Your task to perform on an android device: open app "WhatsApp Messenger" (install if not already installed) and go to login screen Image 0: 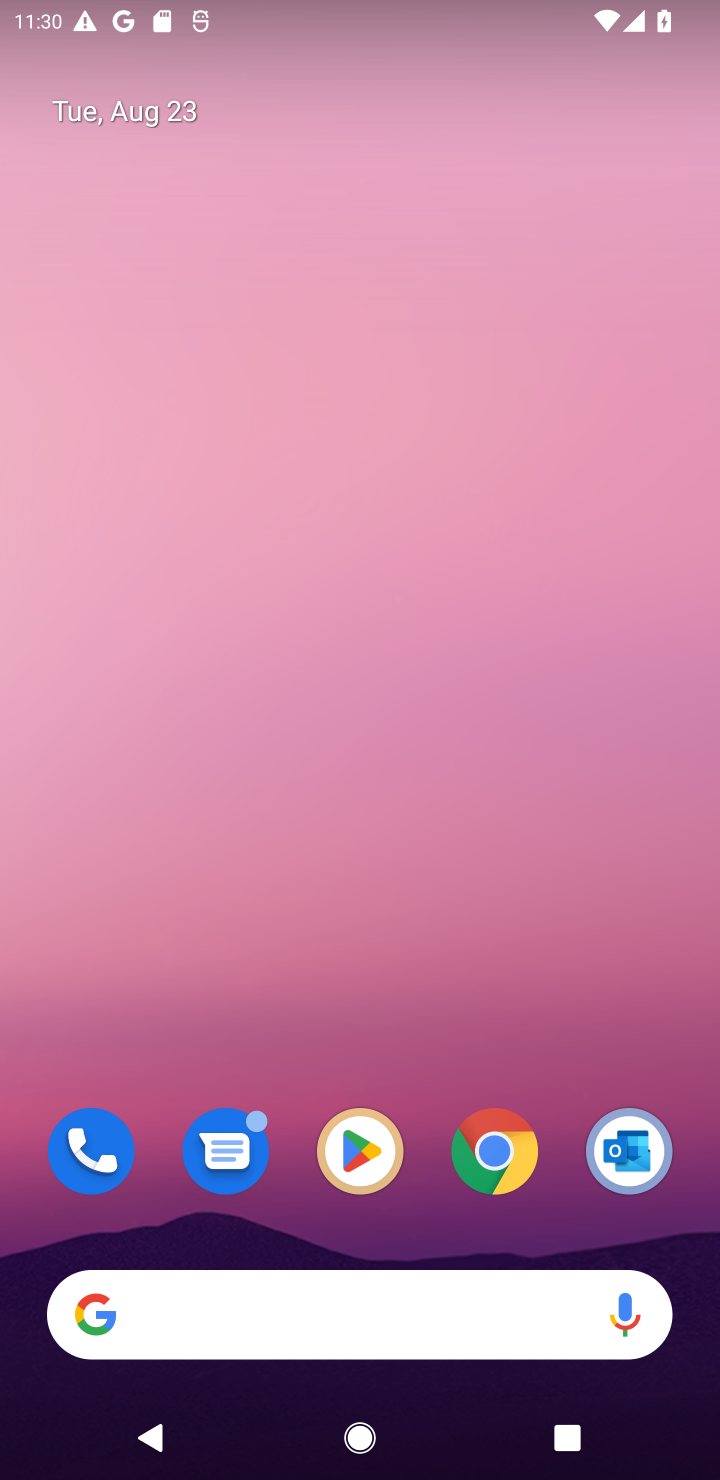
Step 0: click (330, 1154)
Your task to perform on an android device: open app "WhatsApp Messenger" (install if not already installed) and go to login screen Image 1: 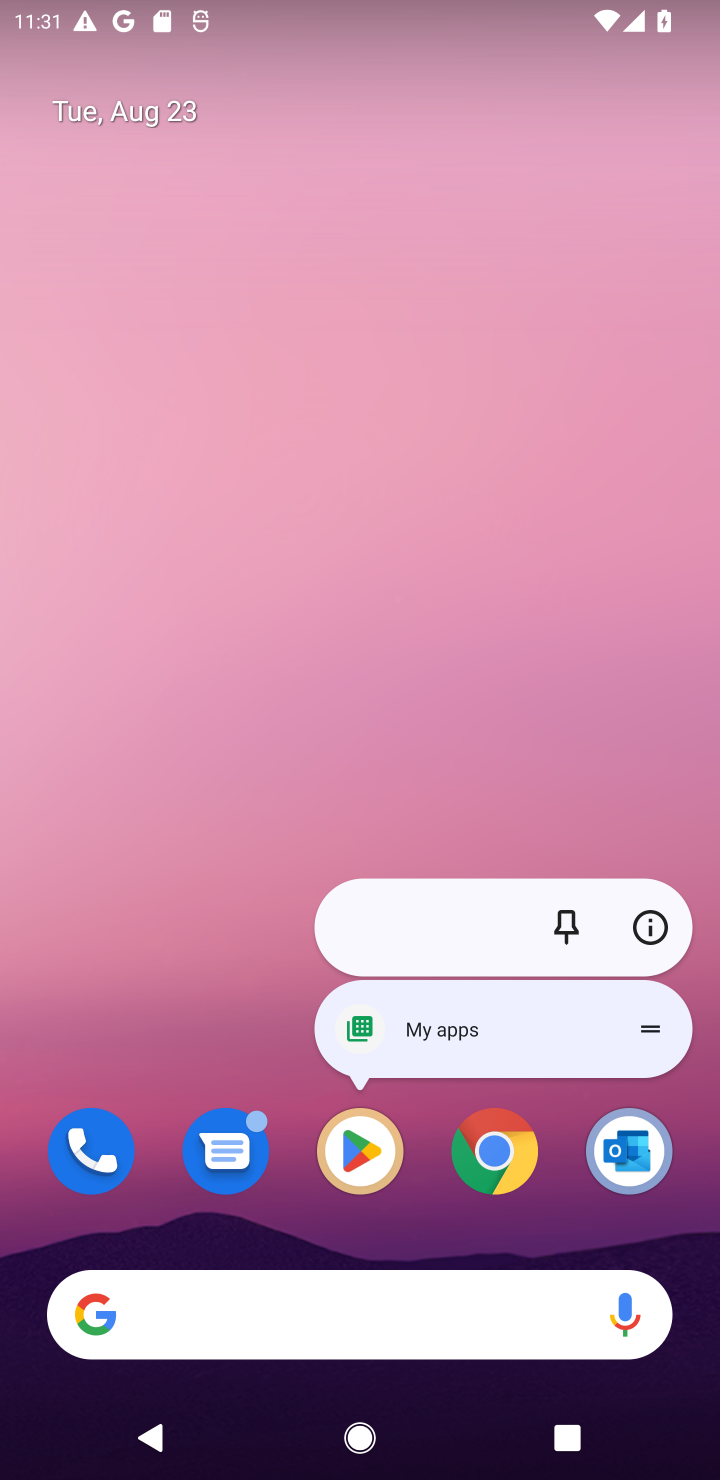
Step 1: click (338, 1152)
Your task to perform on an android device: open app "WhatsApp Messenger" (install if not already installed) and go to login screen Image 2: 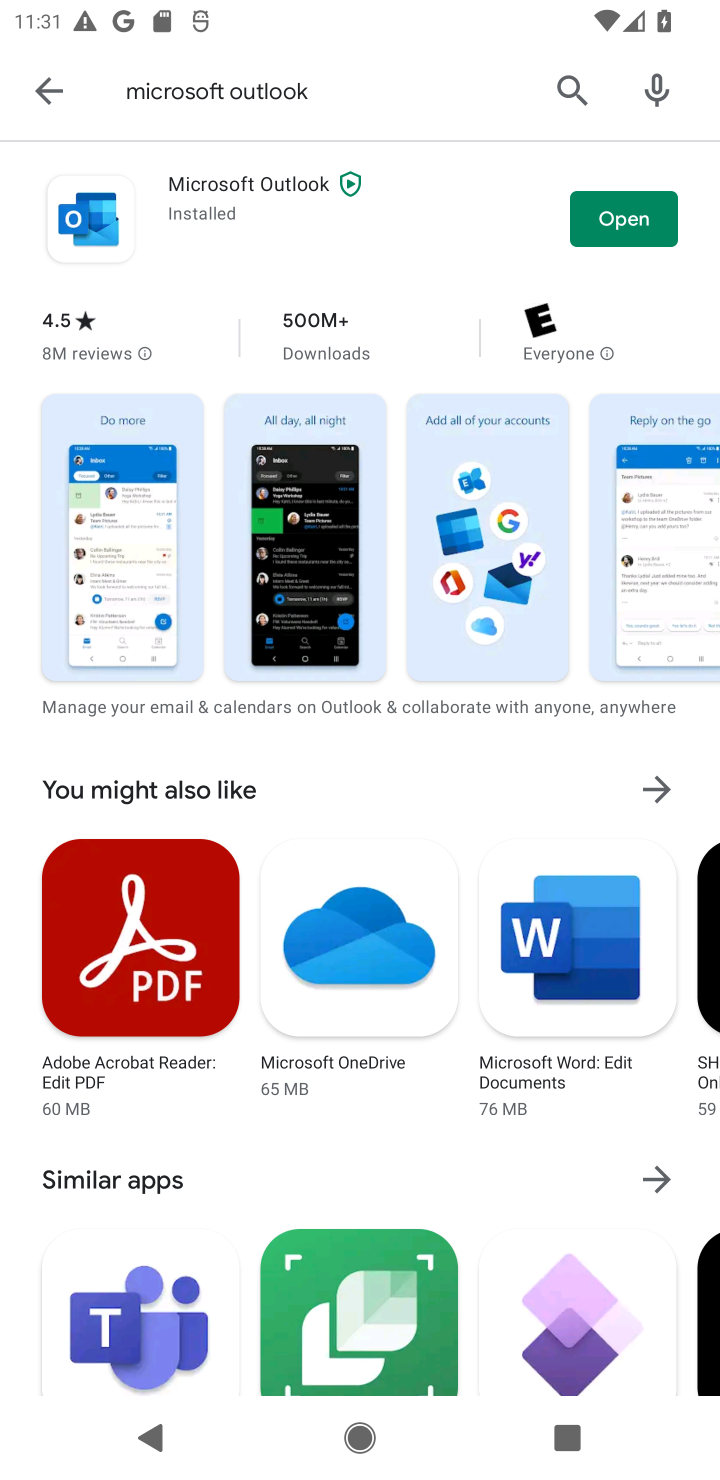
Step 2: click (568, 90)
Your task to perform on an android device: open app "WhatsApp Messenger" (install if not already installed) and go to login screen Image 3: 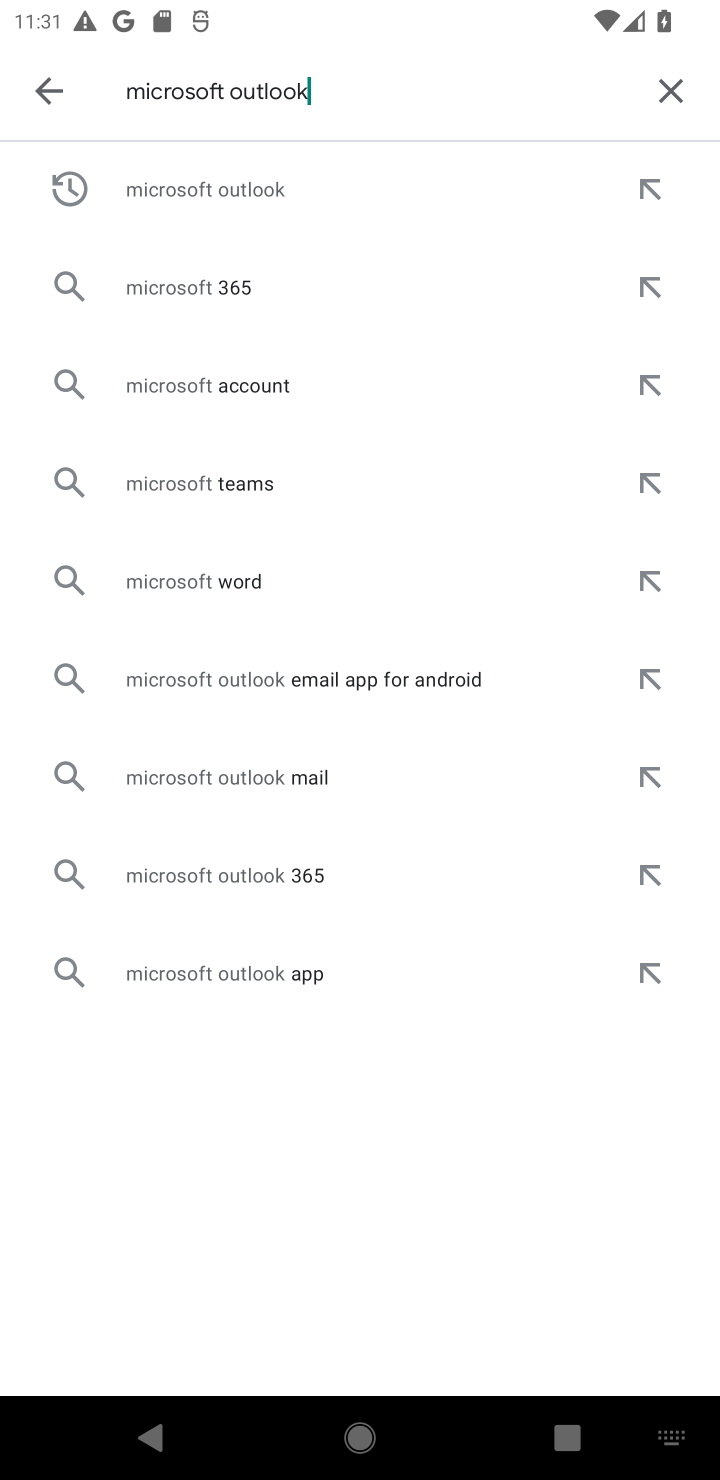
Step 3: click (688, 84)
Your task to perform on an android device: open app "WhatsApp Messenger" (install if not already installed) and go to login screen Image 4: 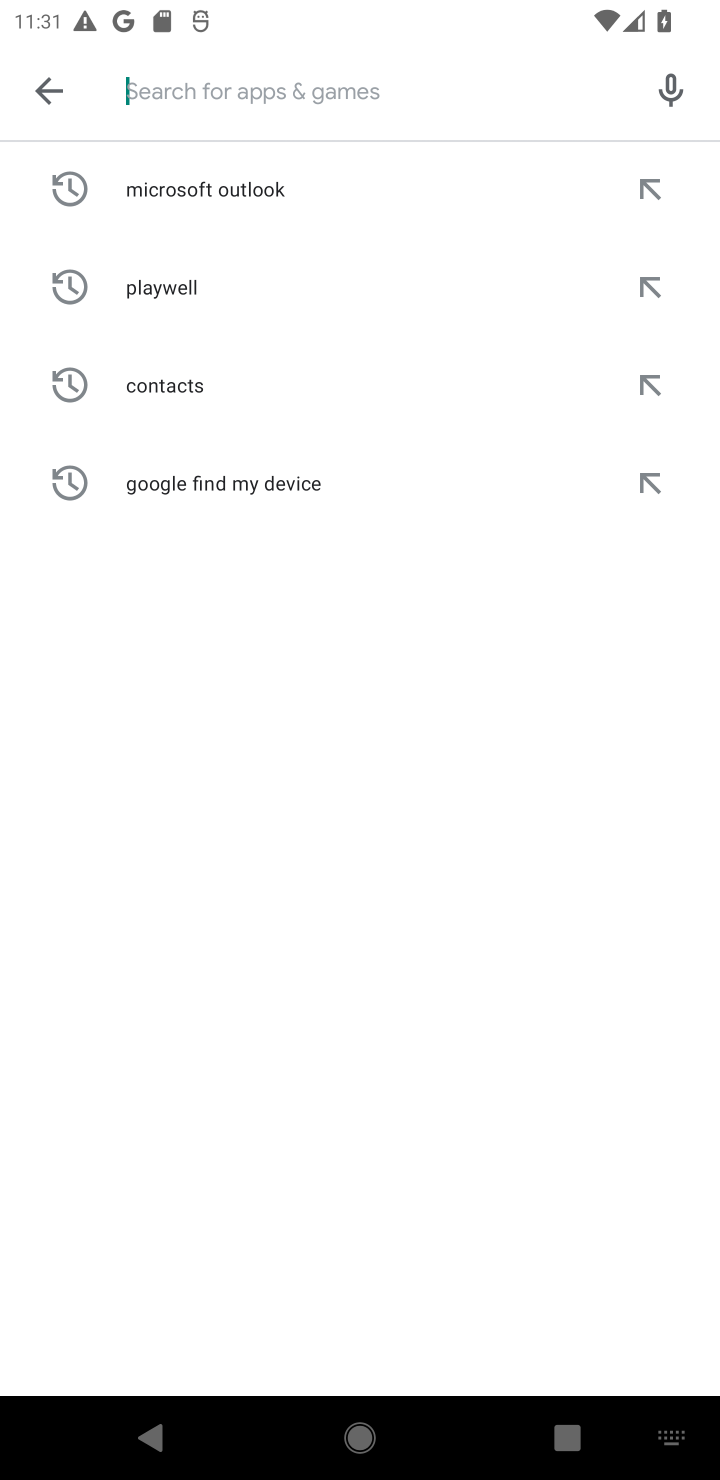
Step 4: type "WhatsApp Messenger"
Your task to perform on an android device: open app "WhatsApp Messenger" (install if not already installed) and go to login screen Image 5: 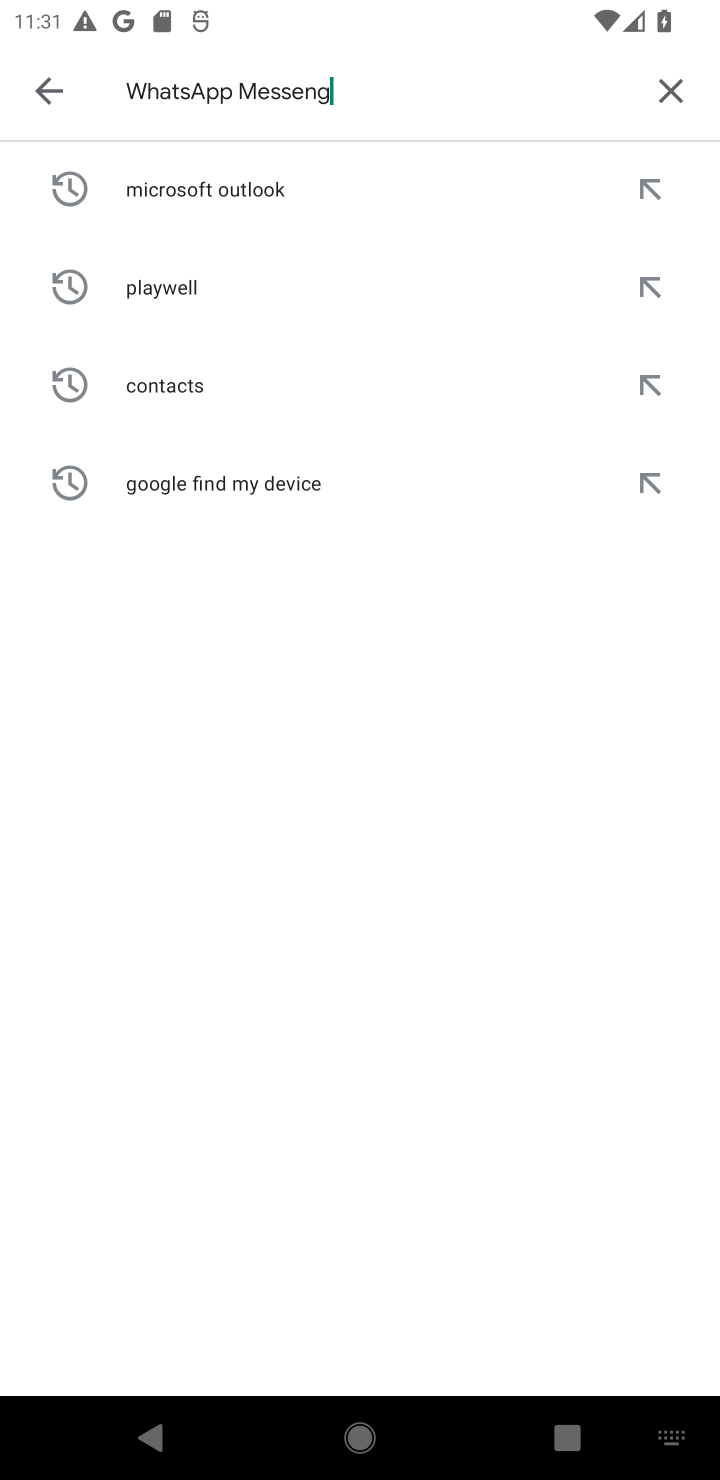
Step 5: type ""
Your task to perform on an android device: open app "WhatsApp Messenger" (install if not already installed) and go to login screen Image 6: 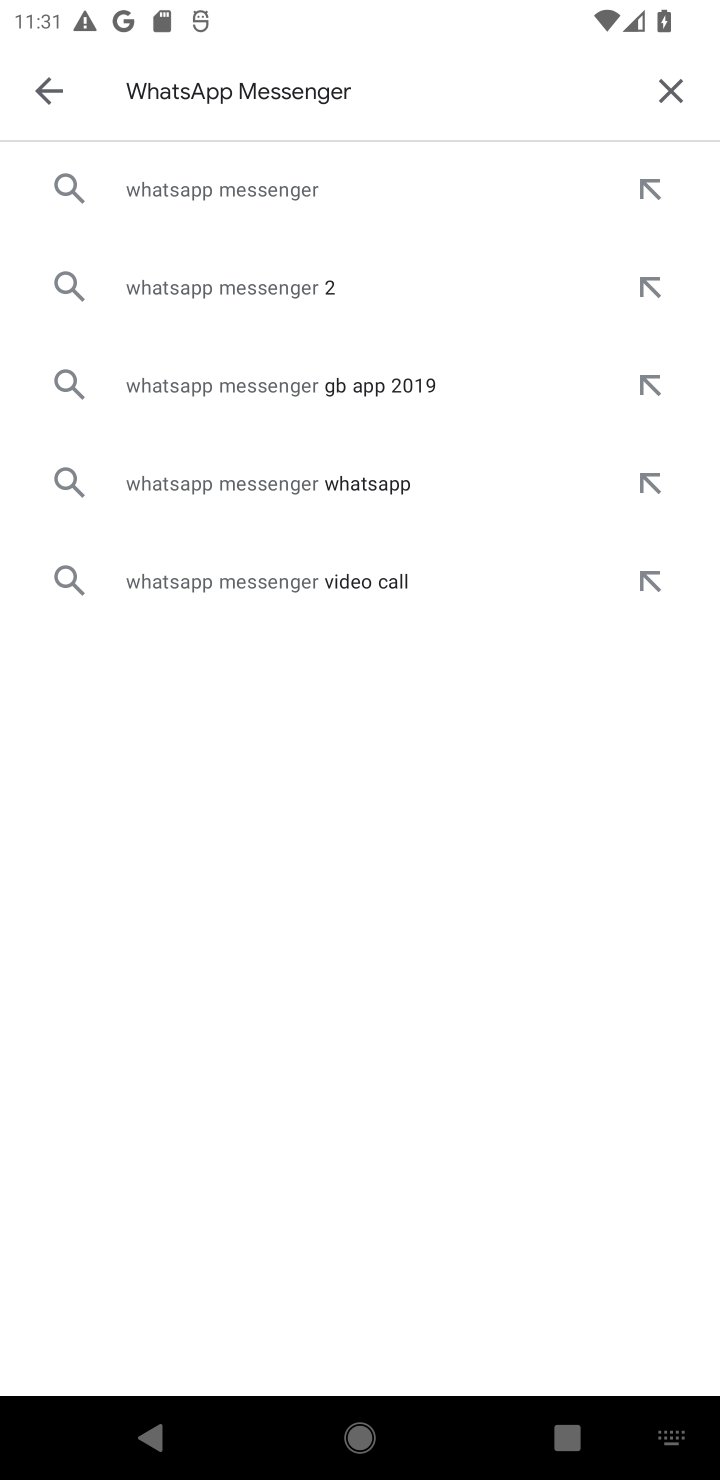
Step 6: click (325, 196)
Your task to perform on an android device: open app "WhatsApp Messenger" (install if not already installed) and go to login screen Image 7: 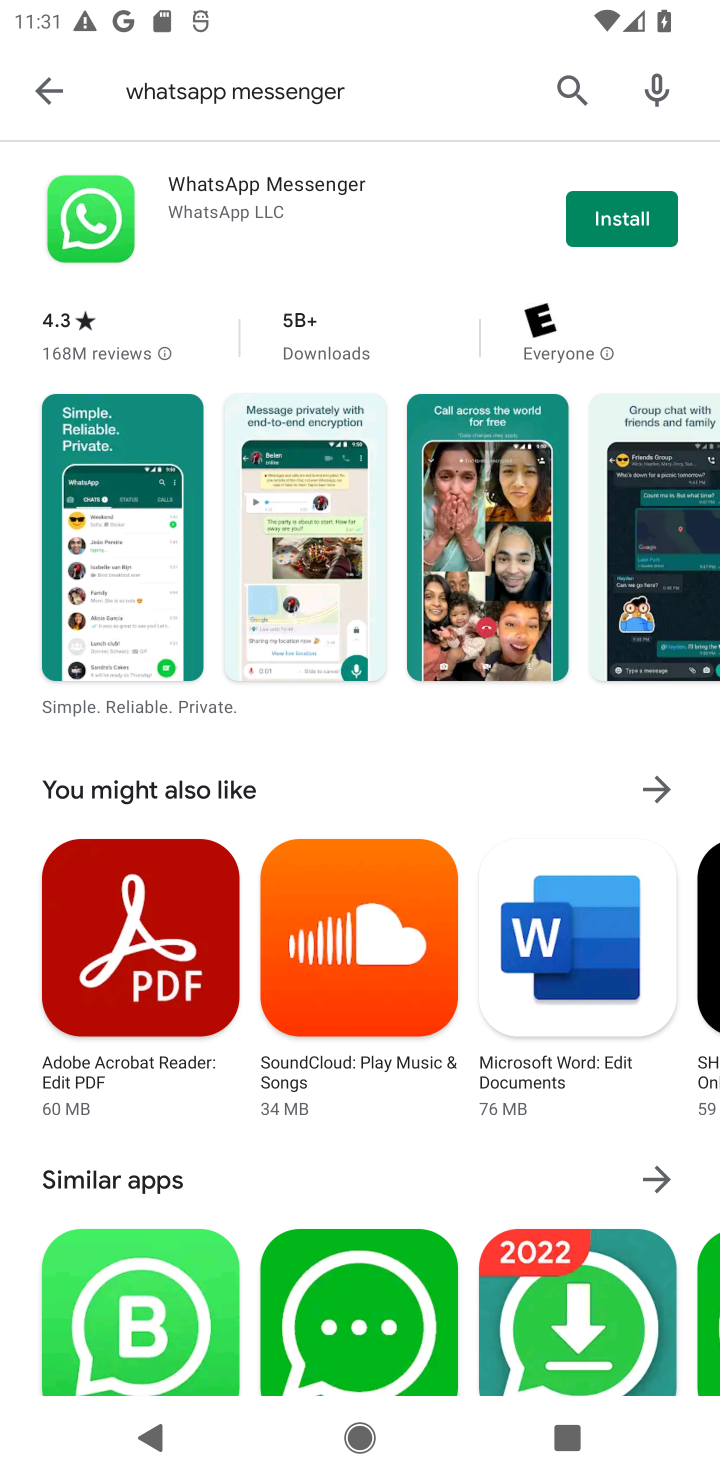
Step 7: click (594, 207)
Your task to perform on an android device: open app "WhatsApp Messenger" (install if not already installed) and go to login screen Image 8: 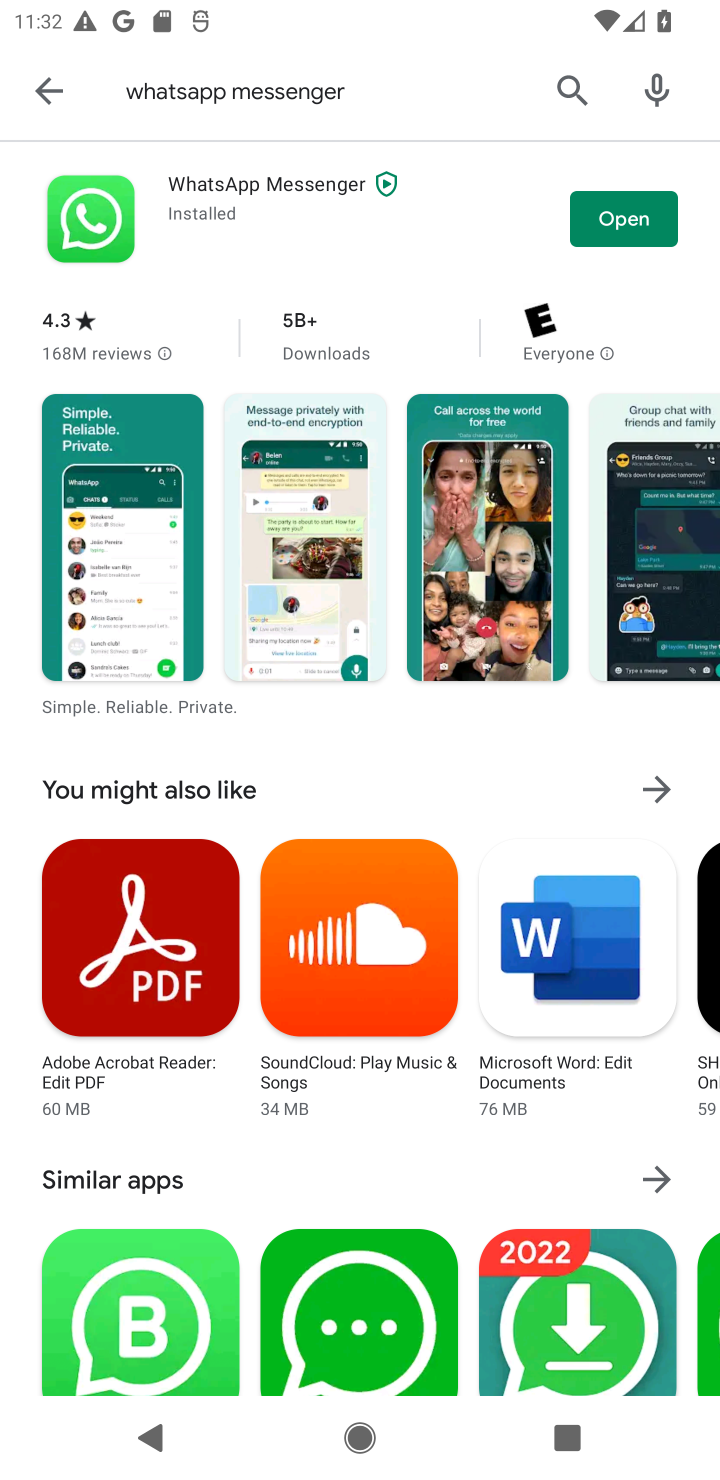
Step 8: click (597, 222)
Your task to perform on an android device: open app "WhatsApp Messenger" (install if not already installed) and go to login screen Image 9: 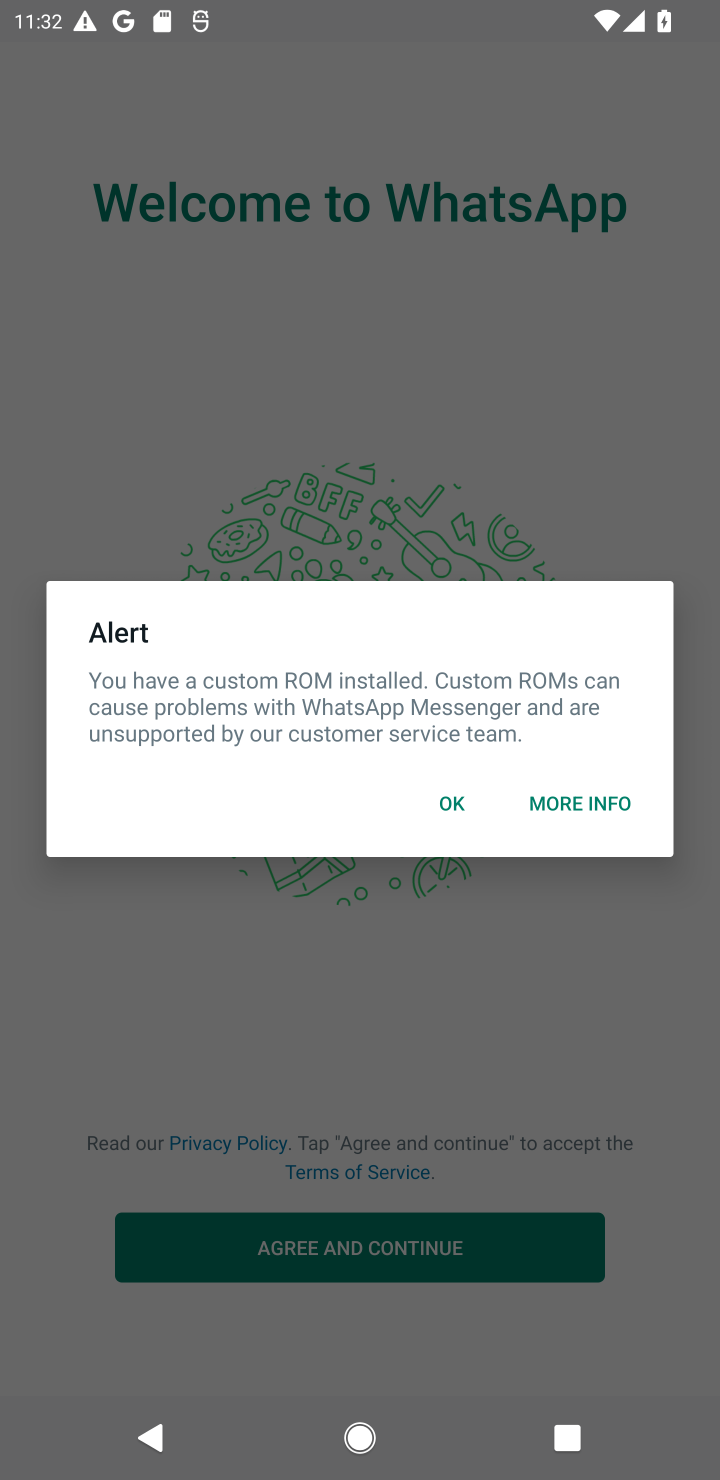
Step 9: task complete